Your task to perform on an android device: Go to Amazon Image 0: 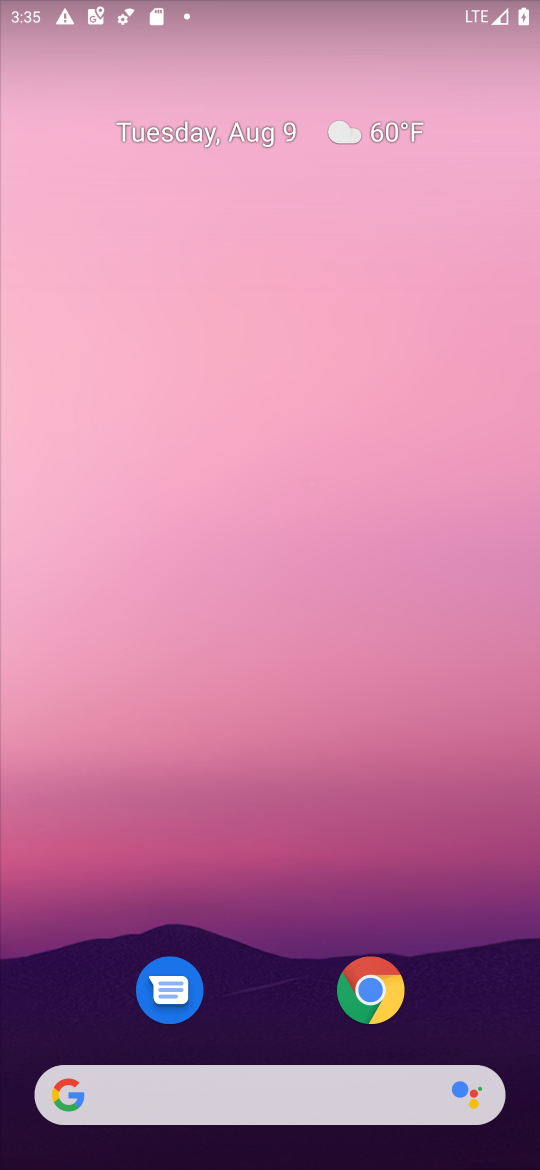
Step 0: drag from (212, 1079) to (212, 705)
Your task to perform on an android device: Go to Amazon Image 1: 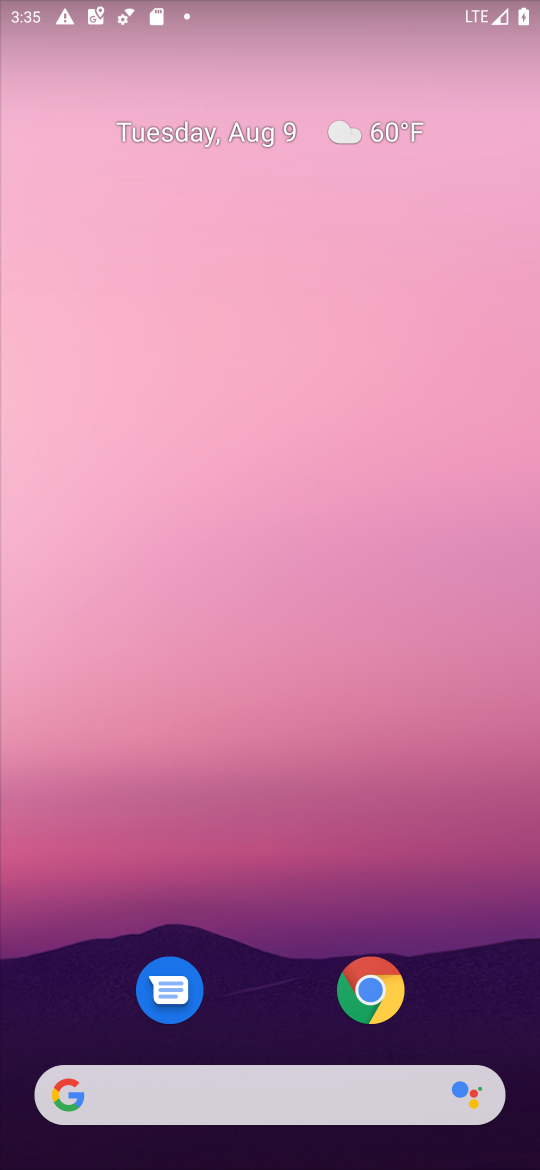
Step 1: drag from (355, 1089) to (474, 370)
Your task to perform on an android device: Go to Amazon Image 2: 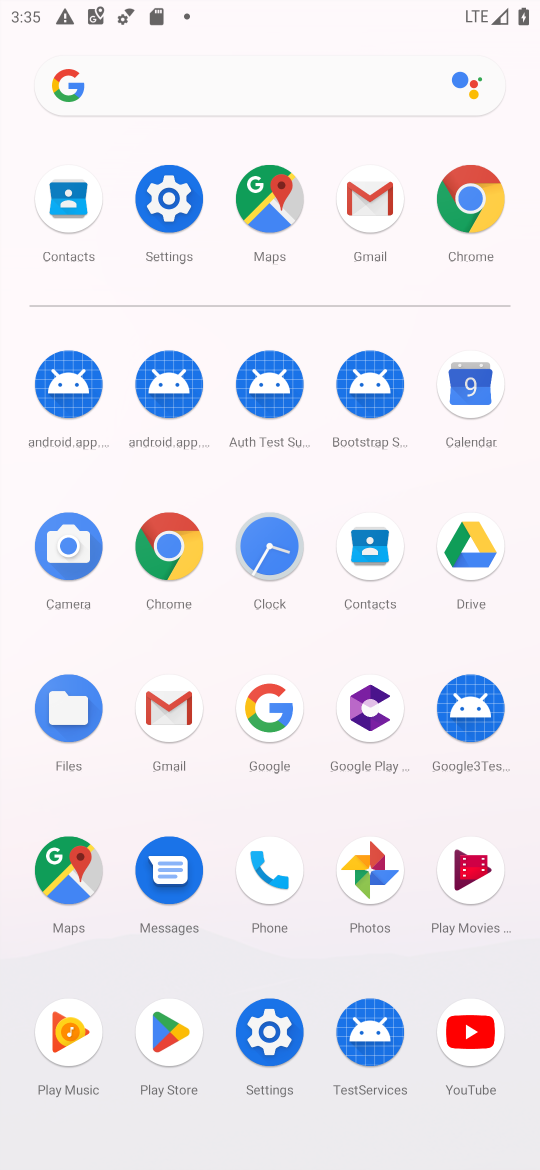
Step 2: click (166, 576)
Your task to perform on an android device: Go to Amazon Image 3: 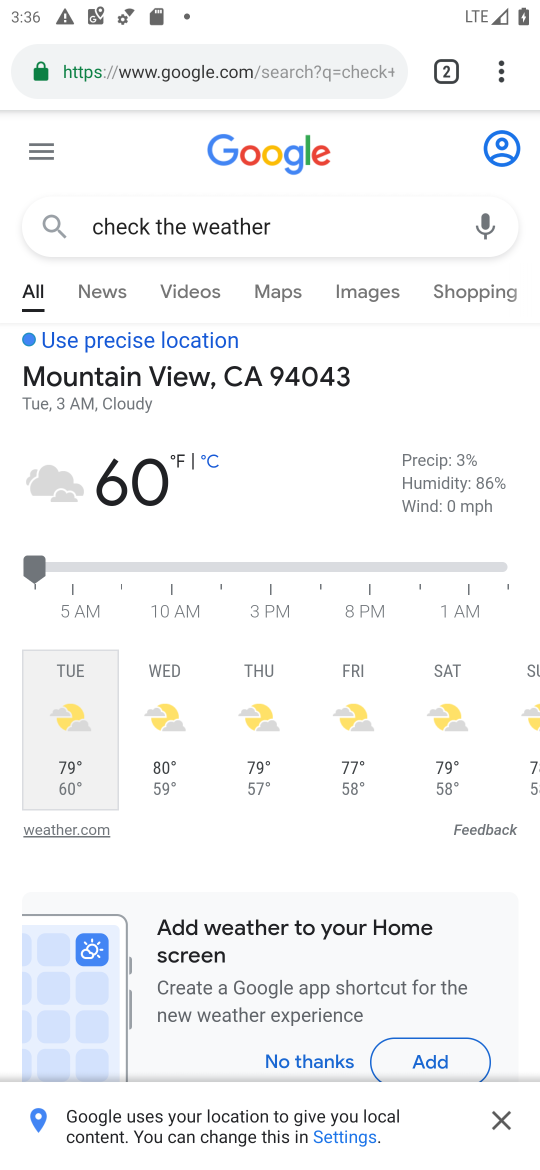
Step 3: click (500, 64)
Your task to perform on an android device: Go to Amazon Image 4: 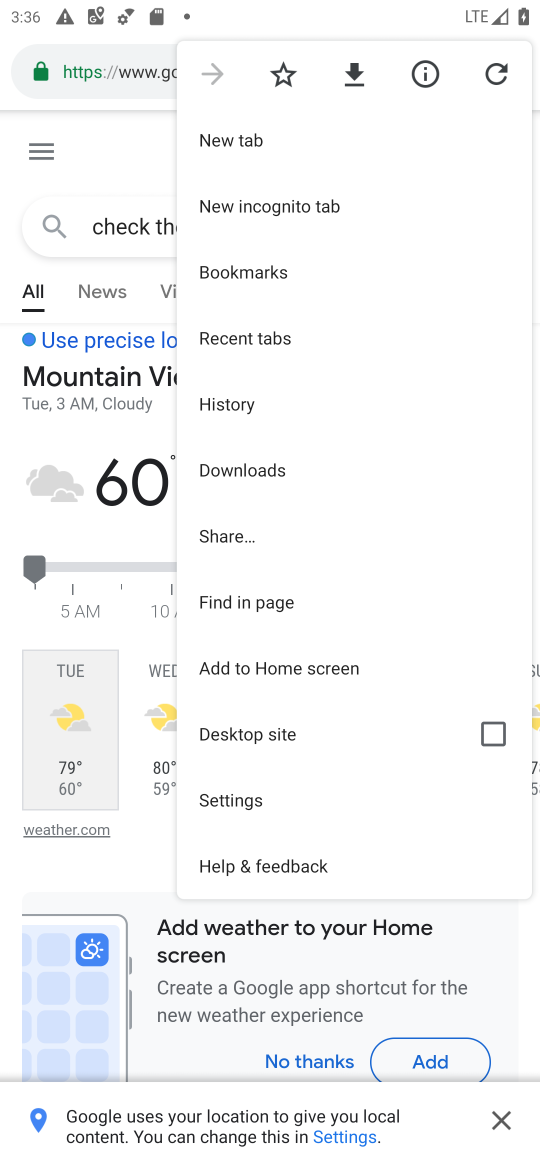
Step 4: click (309, 142)
Your task to perform on an android device: Go to Amazon Image 5: 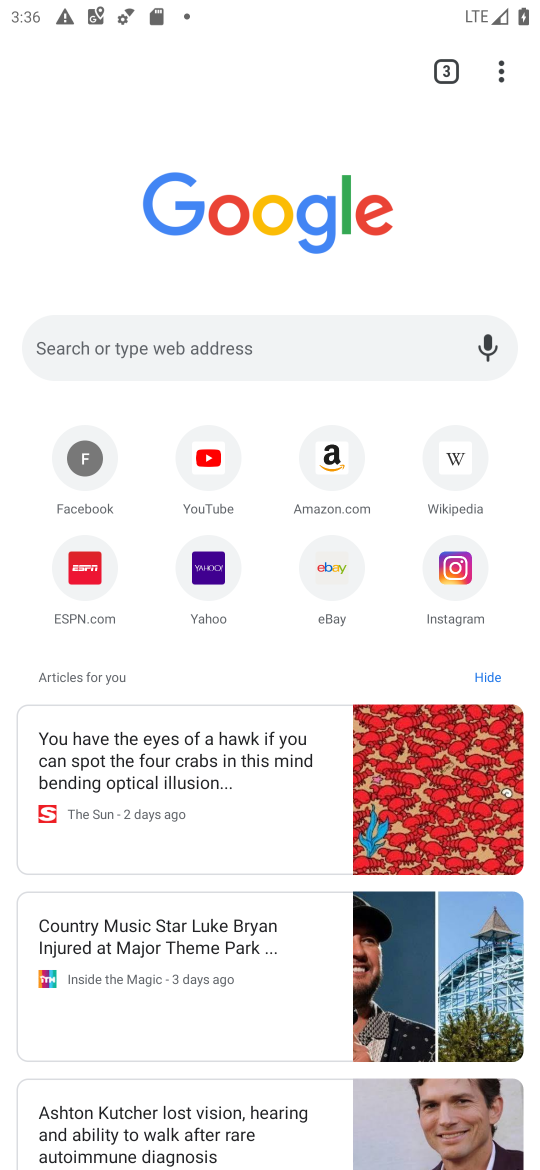
Step 5: click (344, 447)
Your task to perform on an android device: Go to Amazon Image 6: 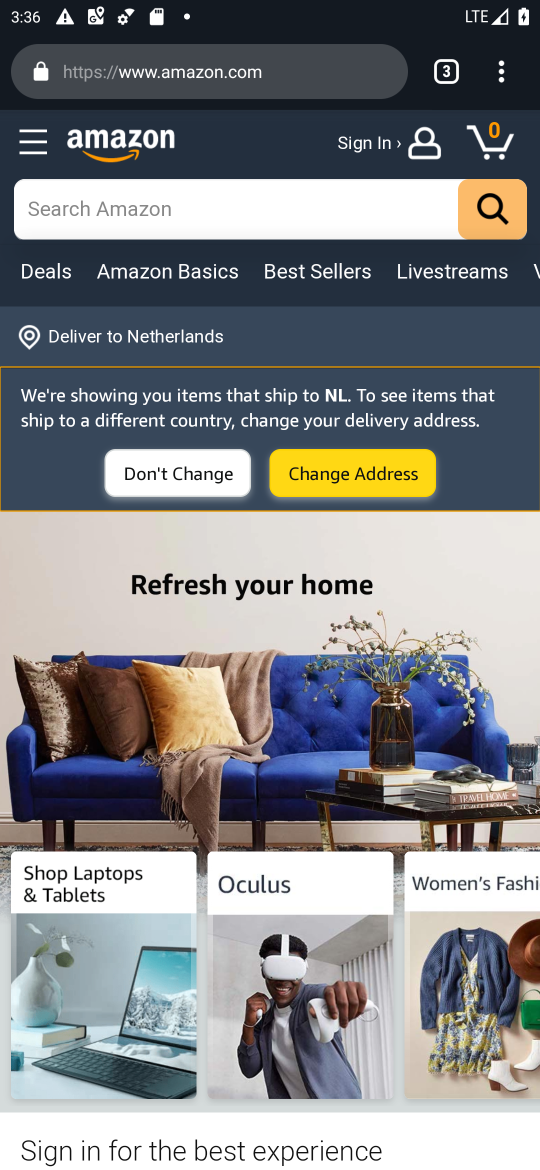
Step 6: task complete